Your task to perform on an android device: Open my contact list Image 0: 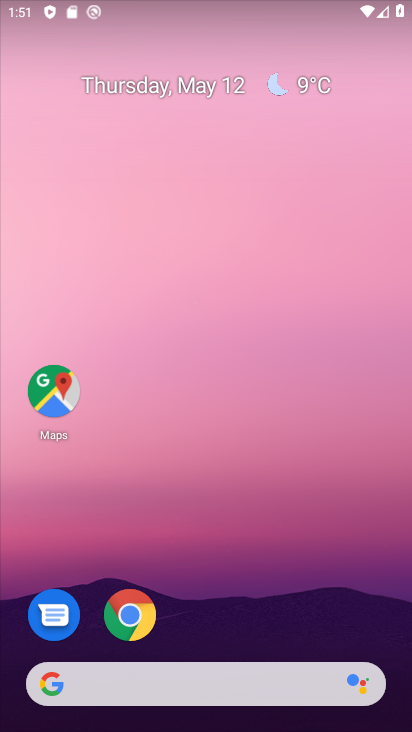
Step 0: drag from (221, 685) to (230, 109)
Your task to perform on an android device: Open my contact list Image 1: 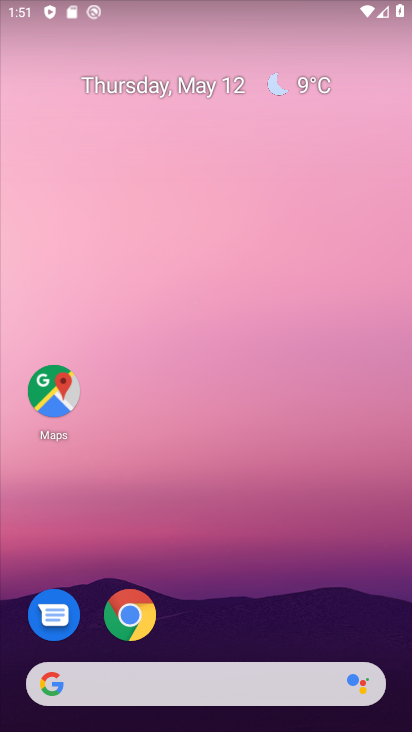
Step 1: drag from (245, 678) to (208, 155)
Your task to perform on an android device: Open my contact list Image 2: 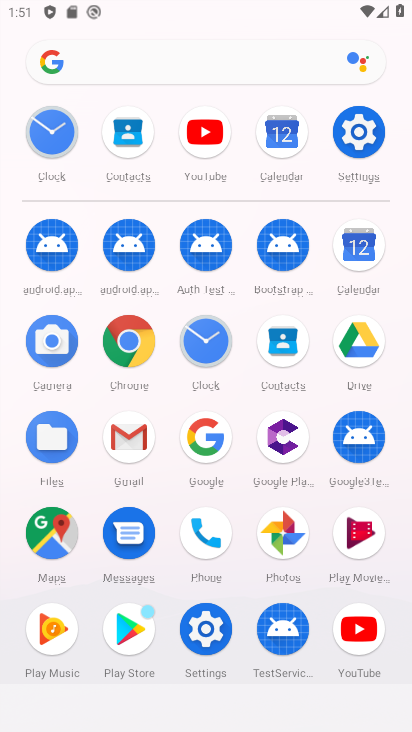
Step 2: click (279, 353)
Your task to perform on an android device: Open my contact list Image 3: 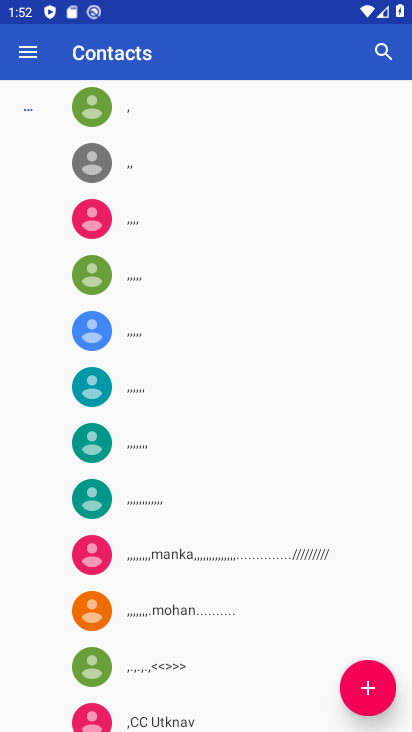
Step 3: task complete